Your task to perform on an android device: make emails show in primary in the gmail app Image 0: 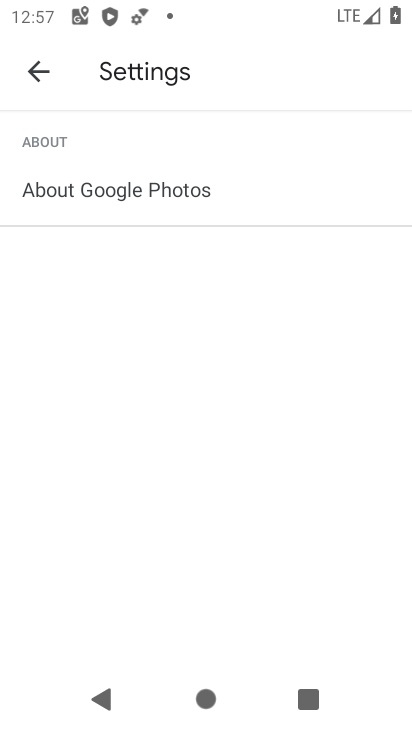
Step 0: press home button
Your task to perform on an android device: make emails show in primary in the gmail app Image 1: 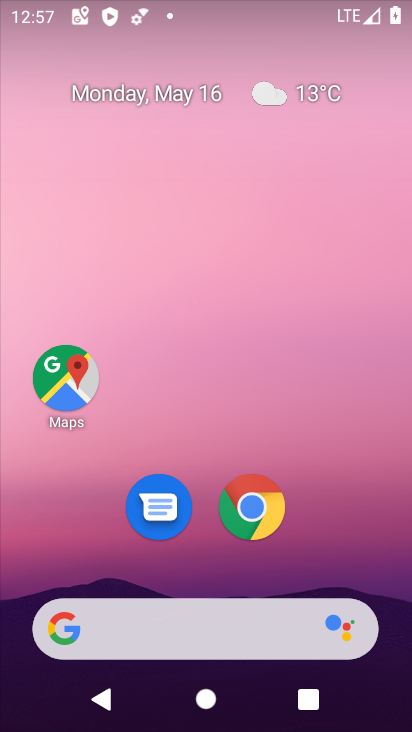
Step 1: drag from (307, 361) to (183, 3)
Your task to perform on an android device: make emails show in primary in the gmail app Image 2: 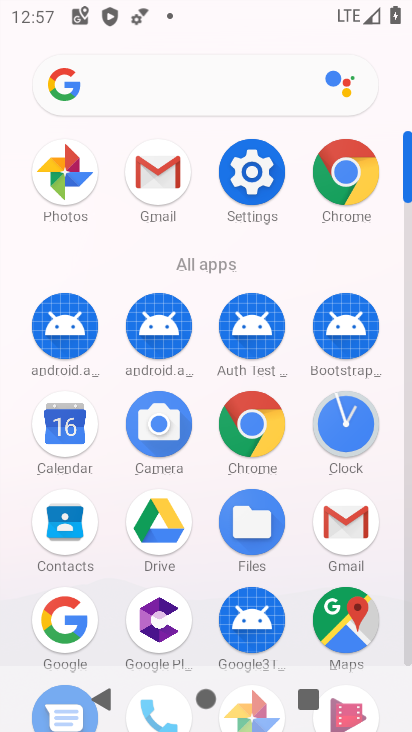
Step 2: click (166, 192)
Your task to perform on an android device: make emails show in primary in the gmail app Image 3: 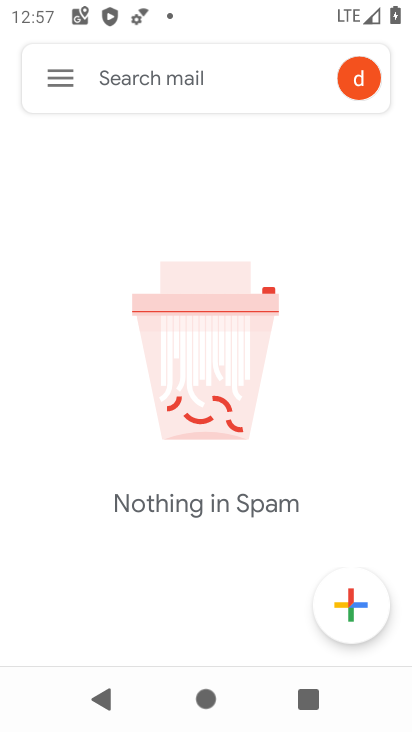
Step 3: click (65, 87)
Your task to perform on an android device: make emails show in primary in the gmail app Image 4: 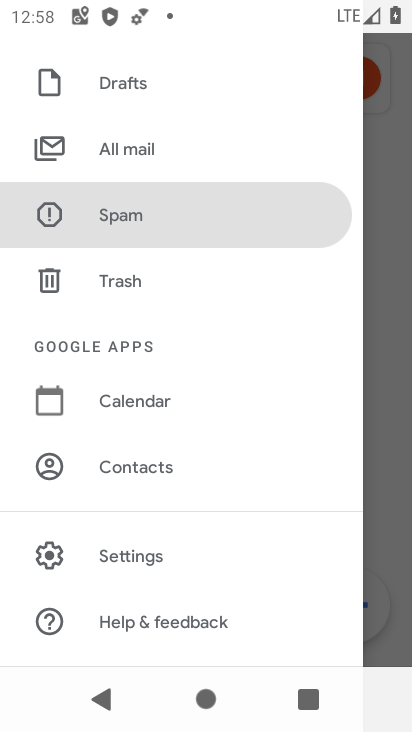
Step 4: drag from (239, 120) to (106, 648)
Your task to perform on an android device: make emails show in primary in the gmail app Image 5: 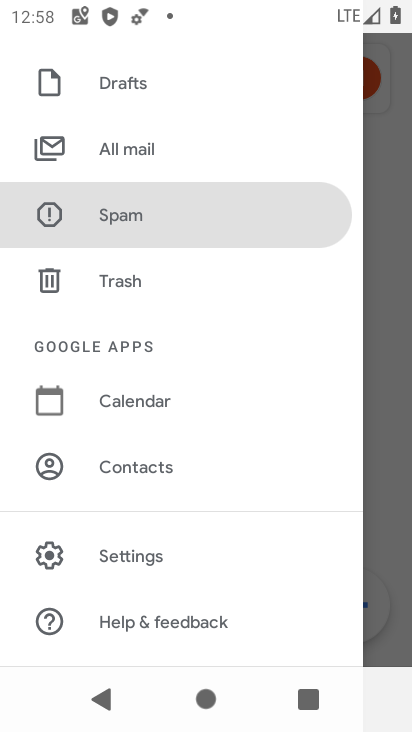
Step 5: drag from (173, 147) to (178, 575)
Your task to perform on an android device: make emails show in primary in the gmail app Image 6: 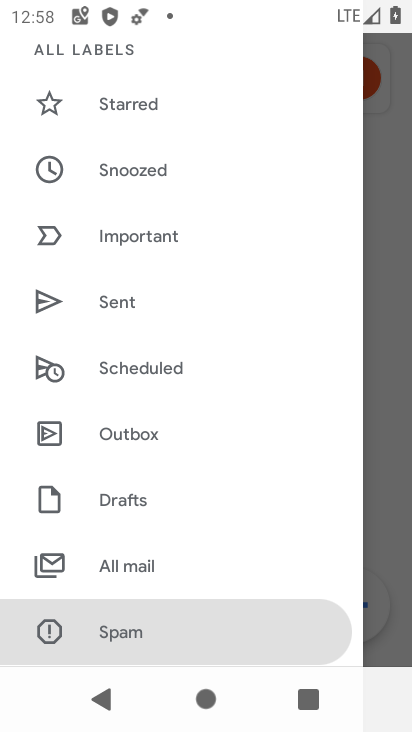
Step 6: drag from (196, 166) to (160, 609)
Your task to perform on an android device: make emails show in primary in the gmail app Image 7: 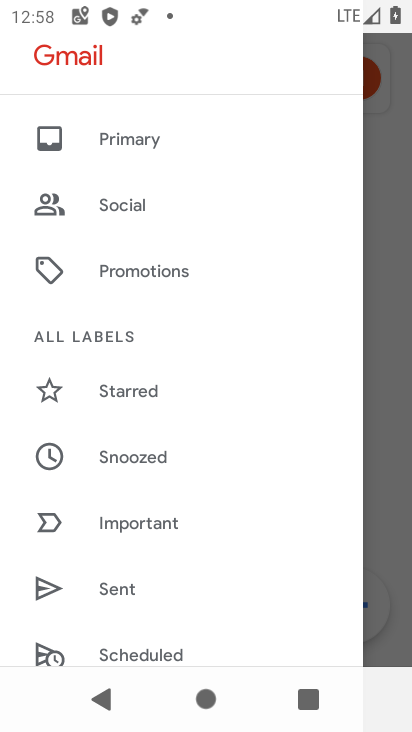
Step 7: click (160, 144)
Your task to perform on an android device: make emails show in primary in the gmail app Image 8: 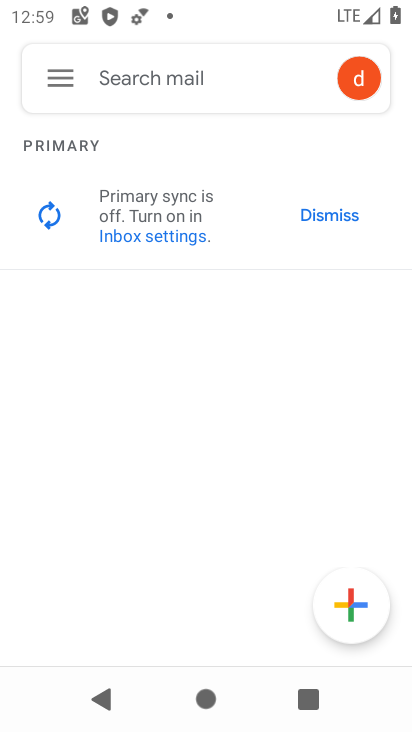
Step 8: task complete